Your task to perform on an android device: turn on improve location accuracy Image 0: 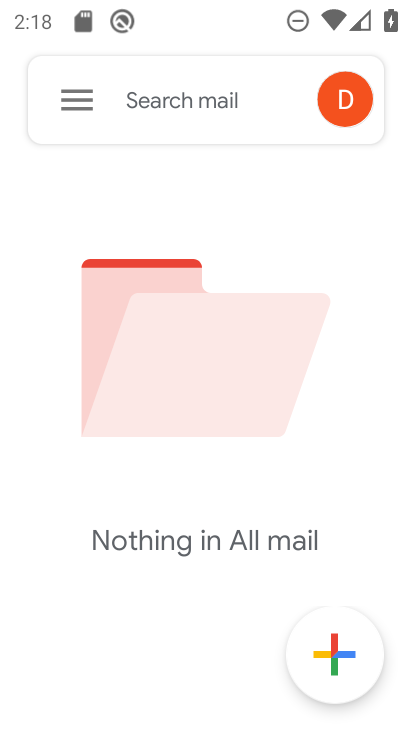
Step 0: press home button
Your task to perform on an android device: turn on improve location accuracy Image 1: 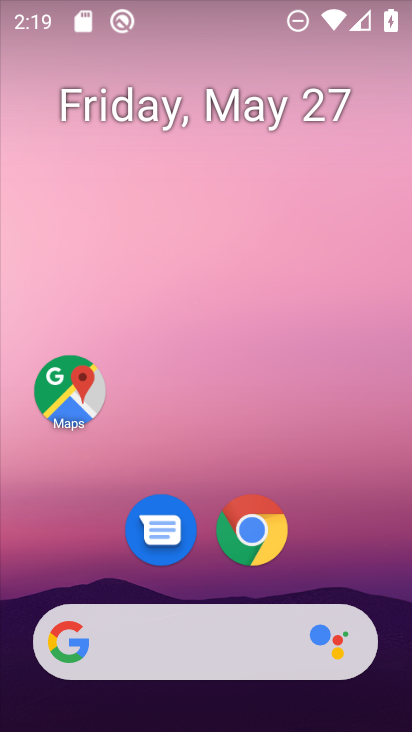
Step 1: drag from (134, 727) to (158, 171)
Your task to perform on an android device: turn on improve location accuracy Image 2: 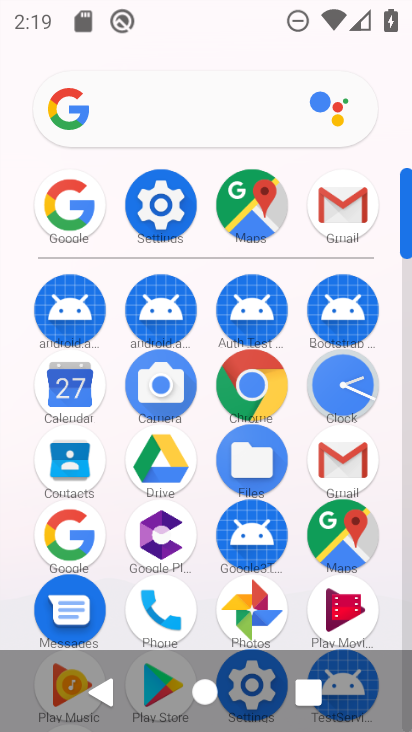
Step 2: drag from (164, 163) to (166, 206)
Your task to perform on an android device: turn on improve location accuracy Image 3: 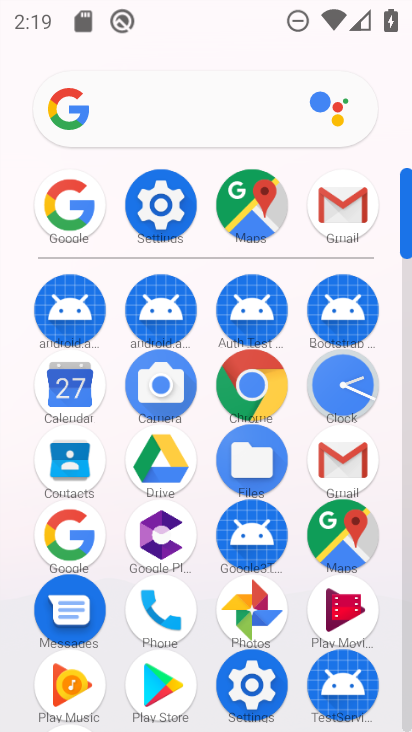
Step 3: click (169, 195)
Your task to perform on an android device: turn on improve location accuracy Image 4: 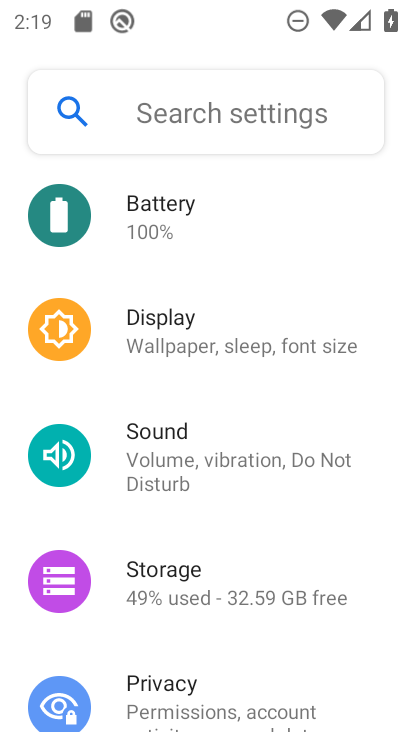
Step 4: drag from (294, 671) to (251, 246)
Your task to perform on an android device: turn on improve location accuracy Image 5: 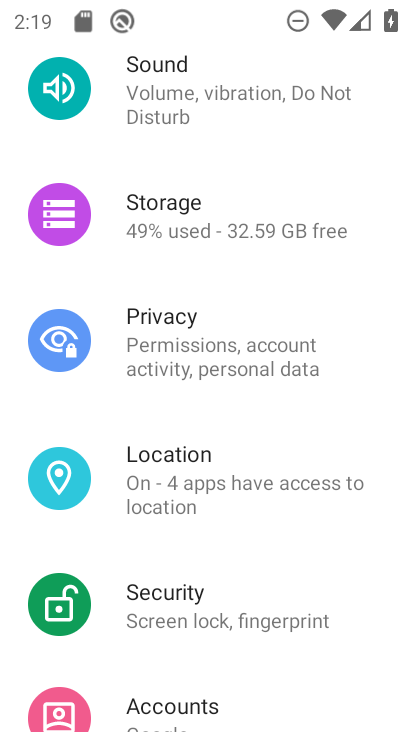
Step 5: click (218, 483)
Your task to perform on an android device: turn on improve location accuracy Image 6: 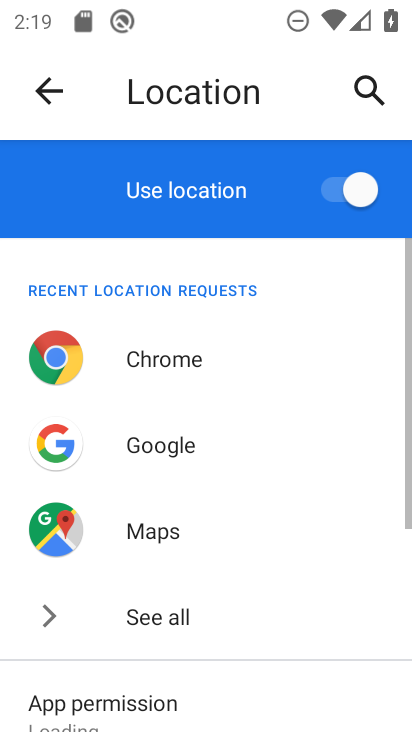
Step 6: drag from (195, 674) to (225, 206)
Your task to perform on an android device: turn on improve location accuracy Image 7: 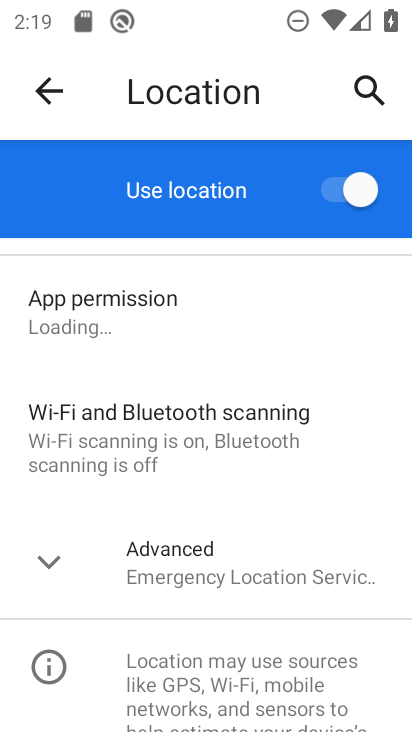
Step 7: click (230, 566)
Your task to perform on an android device: turn on improve location accuracy Image 8: 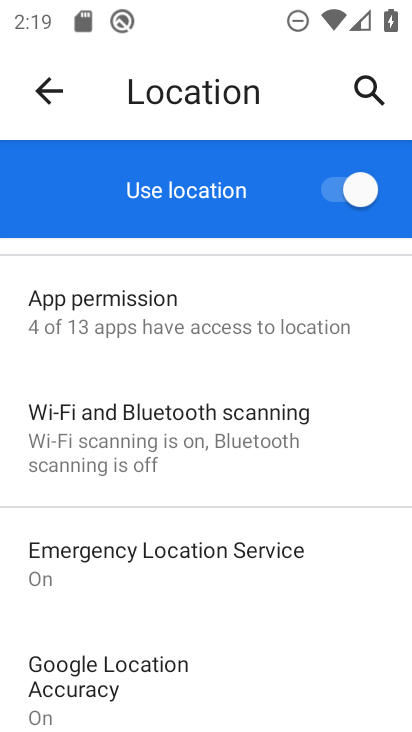
Step 8: drag from (213, 645) to (204, 334)
Your task to perform on an android device: turn on improve location accuracy Image 9: 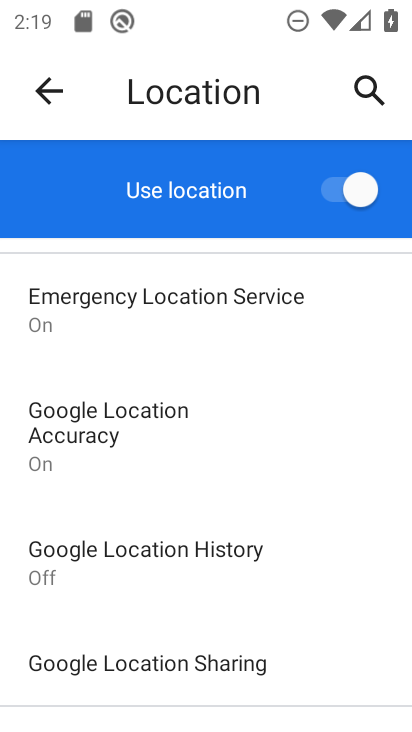
Step 9: click (93, 435)
Your task to perform on an android device: turn on improve location accuracy Image 10: 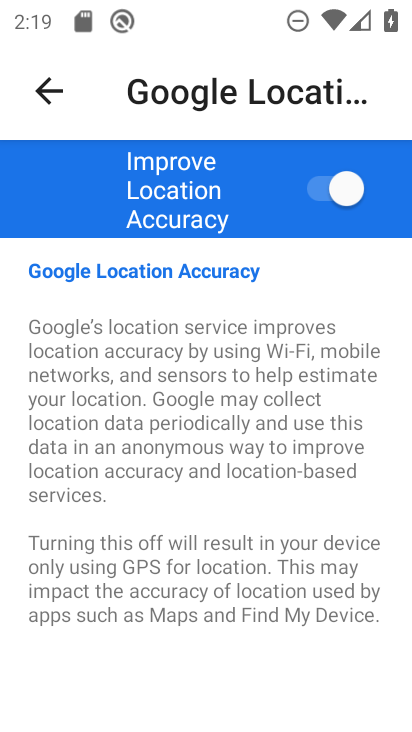
Step 10: task complete